Your task to perform on an android device: see creations saved in the google photos Image 0: 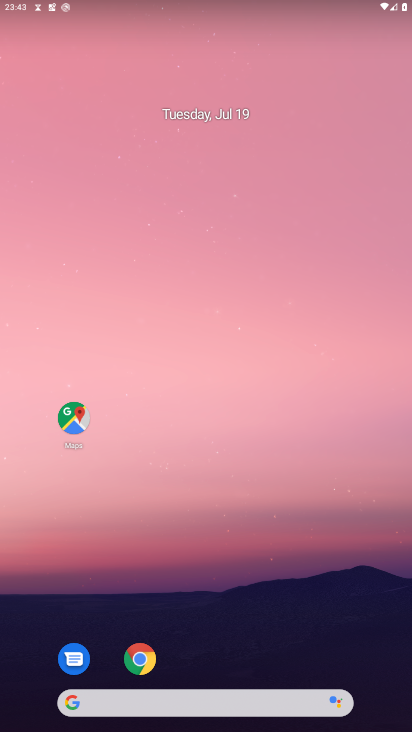
Step 0: drag from (268, 594) to (226, 98)
Your task to perform on an android device: see creations saved in the google photos Image 1: 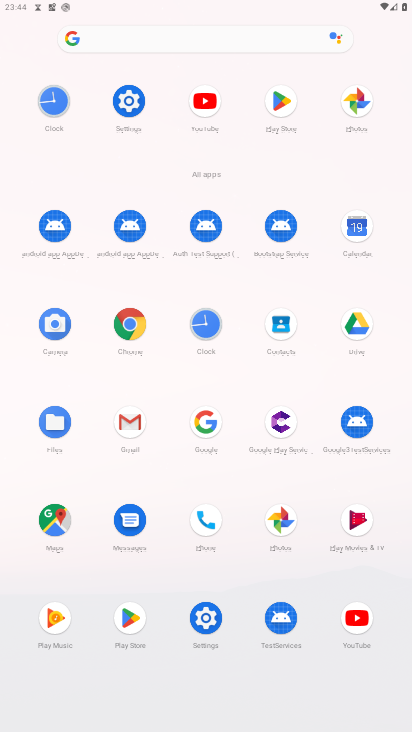
Step 1: click (288, 529)
Your task to perform on an android device: see creations saved in the google photos Image 2: 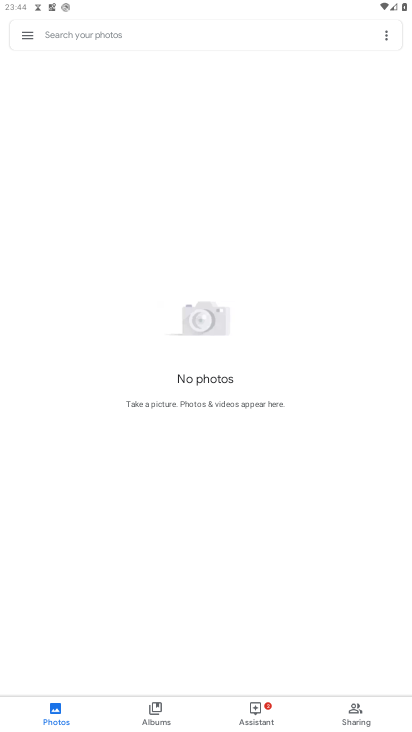
Step 2: click (115, 36)
Your task to perform on an android device: see creations saved in the google photos Image 3: 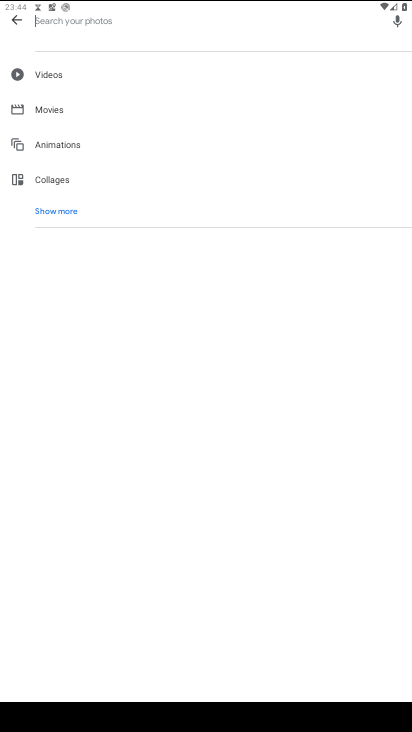
Step 3: click (51, 209)
Your task to perform on an android device: see creations saved in the google photos Image 4: 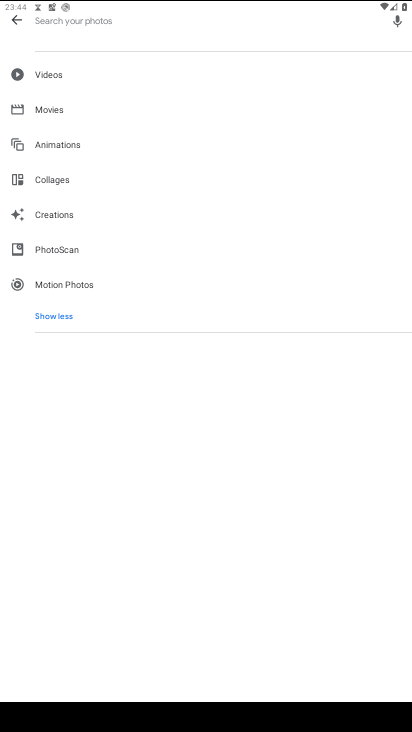
Step 4: click (63, 217)
Your task to perform on an android device: see creations saved in the google photos Image 5: 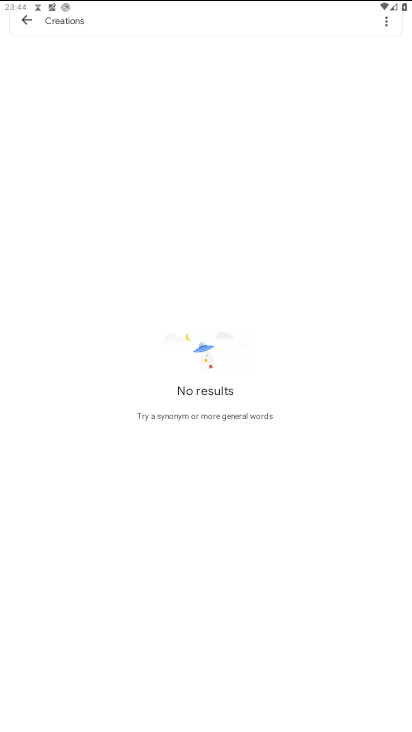
Step 5: task complete